Your task to perform on an android device: Go to display settings Image 0: 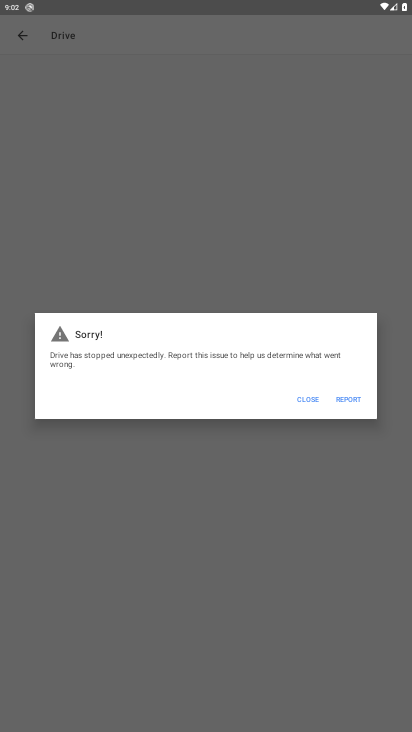
Step 0: press home button
Your task to perform on an android device: Go to display settings Image 1: 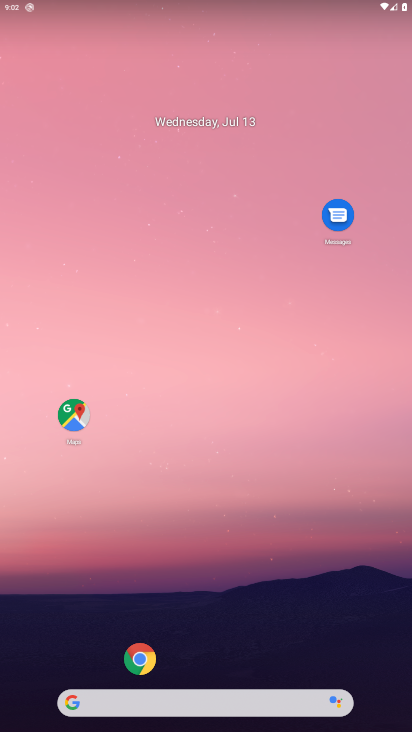
Step 1: drag from (37, 684) to (138, 133)
Your task to perform on an android device: Go to display settings Image 2: 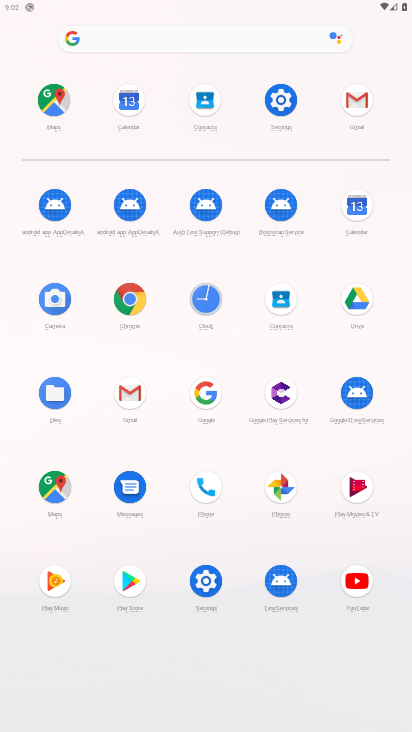
Step 2: click (205, 578)
Your task to perform on an android device: Go to display settings Image 3: 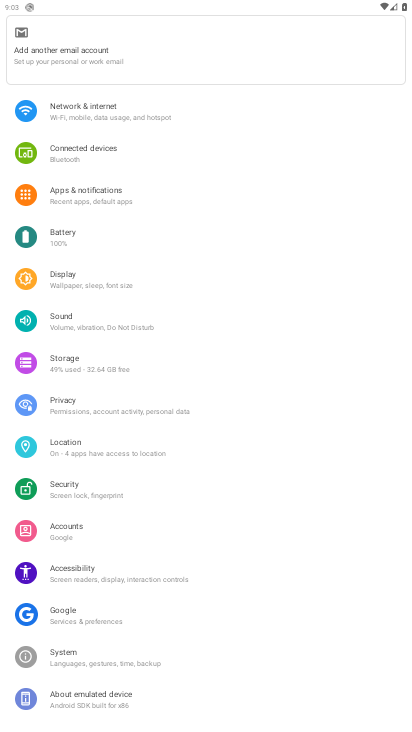
Step 3: click (85, 279)
Your task to perform on an android device: Go to display settings Image 4: 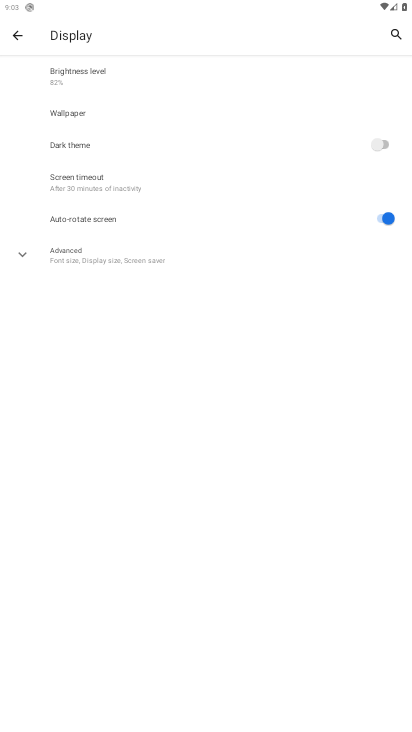
Step 4: task complete